Your task to perform on an android device: open a new tab in the chrome app Image 0: 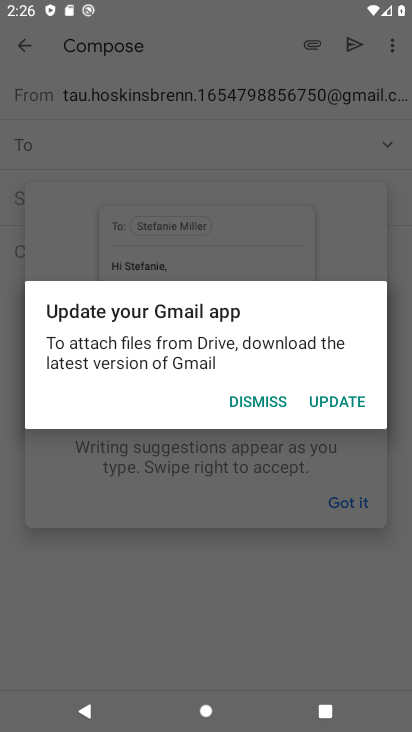
Step 0: press home button
Your task to perform on an android device: open a new tab in the chrome app Image 1: 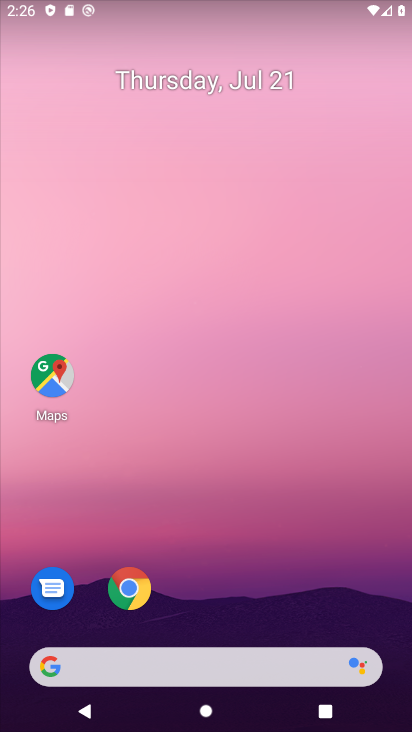
Step 1: click (127, 590)
Your task to perform on an android device: open a new tab in the chrome app Image 2: 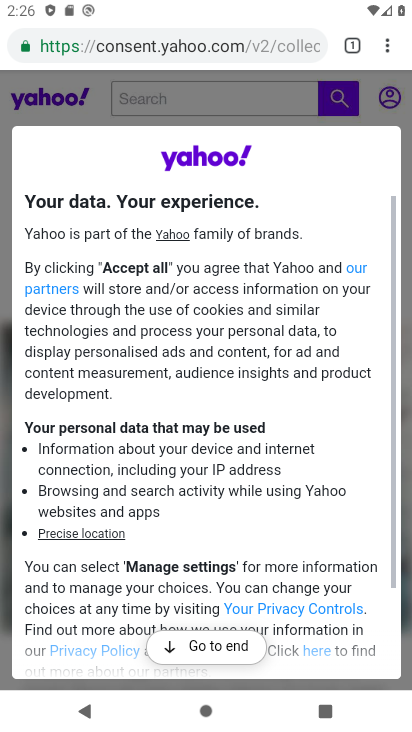
Step 2: click (388, 50)
Your task to perform on an android device: open a new tab in the chrome app Image 3: 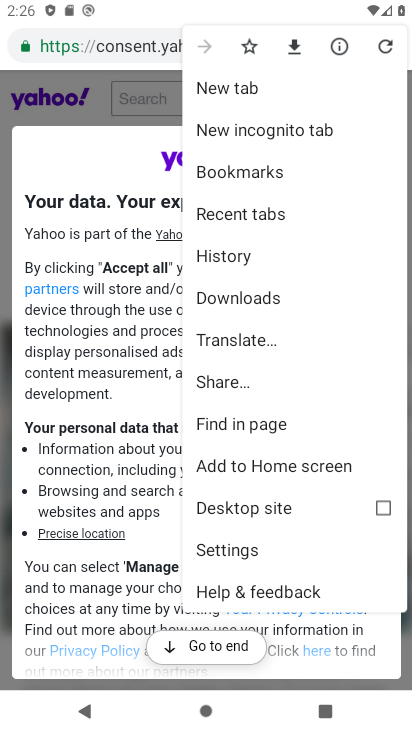
Step 3: click (245, 86)
Your task to perform on an android device: open a new tab in the chrome app Image 4: 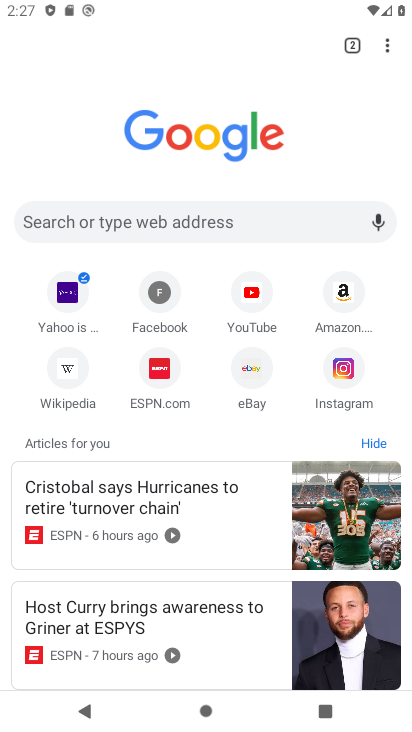
Step 4: task complete